Your task to perform on an android device: Go to Google Image 0: 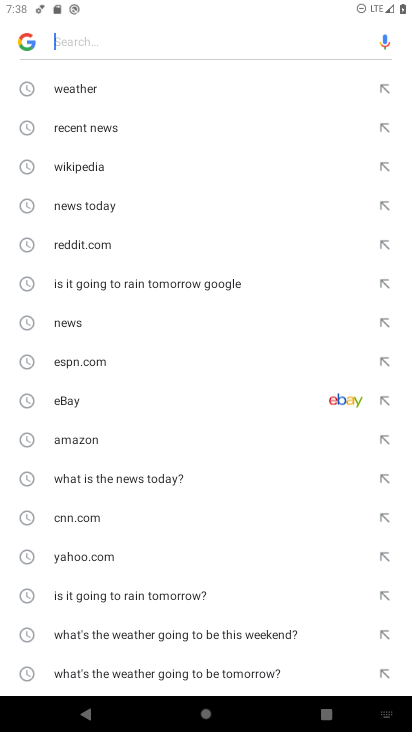
Step 0: press home button
Your task to perform on an android device: Go to Google Image 1: 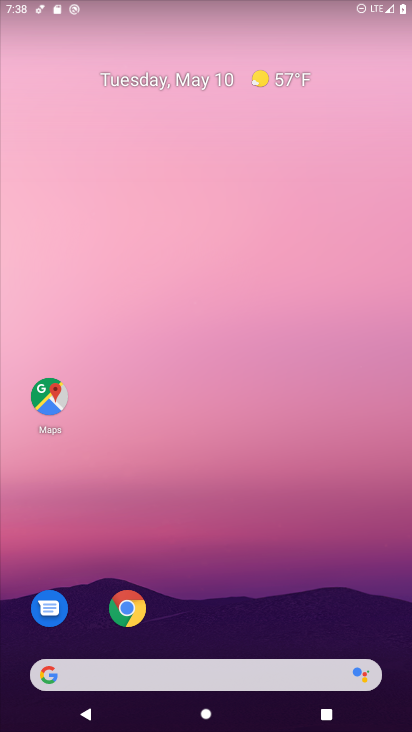
Step 1: drag from (315, 628) to (247, 0)
Your task to perform on an android device: Go to Google Image 2: 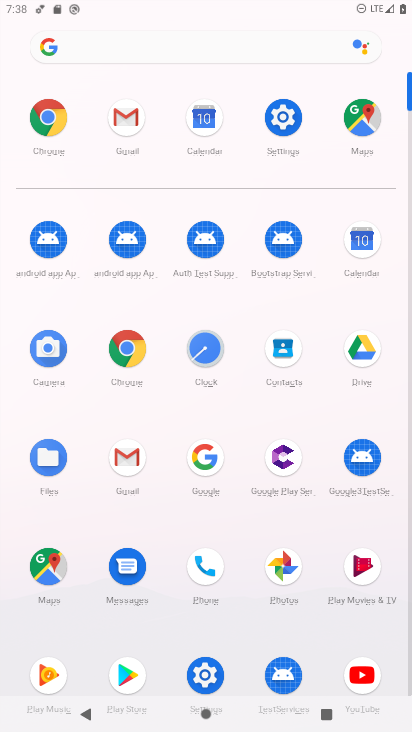
Step 2: click (194, 461)
Your task to perform on an android device: Go to Google Image 3: 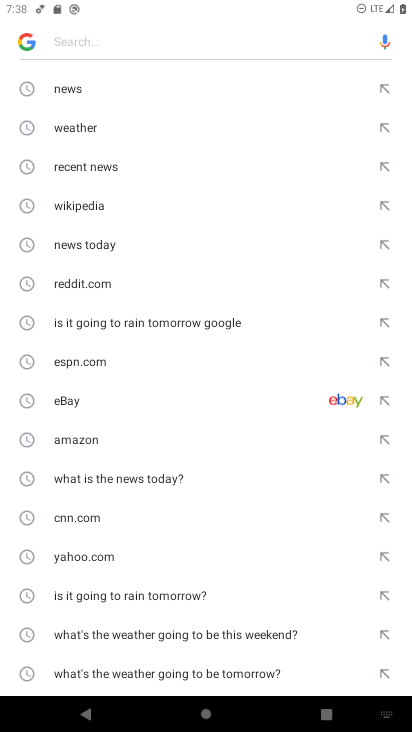
Step 3: task complete